Your task to perform on an android device: Open calendar and show me the third week of next month Image 0: 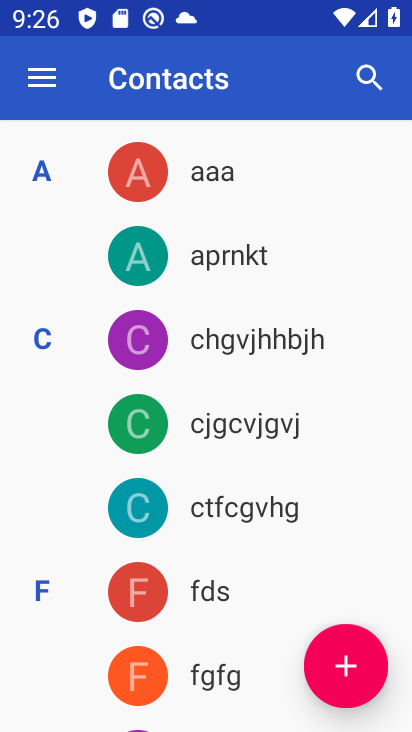
Step 0: press home button
Your task to perform on an android device: Open calendar and show me the third week of next month Image 1: 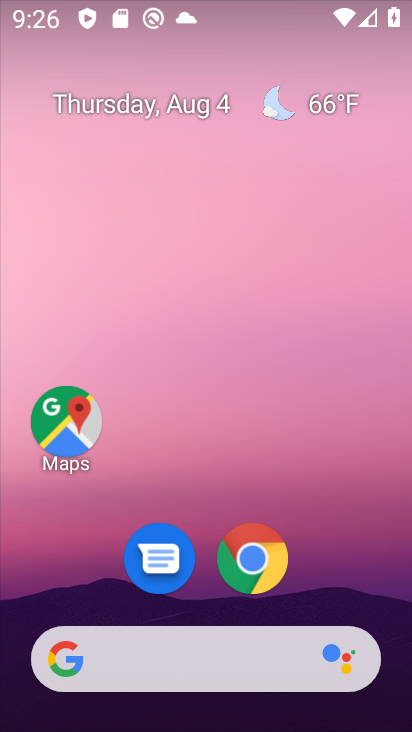
Step 1: drag from (312, 557) to (265, 16)
Your task to perform on an android device: Open calendar and show me the third week of next month Image 2: 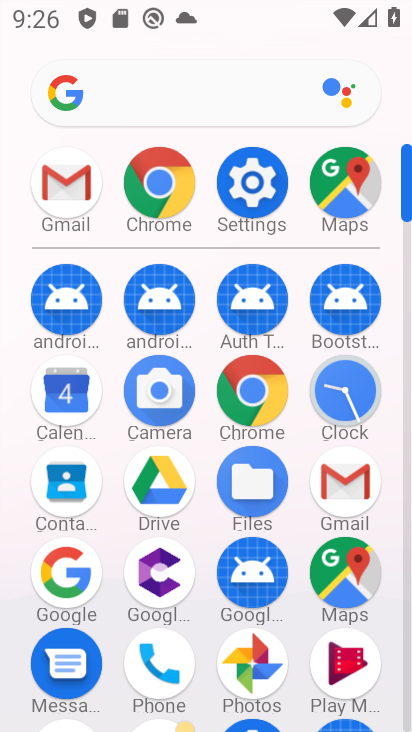
Step 2: click (64, 399)
Your task to perform on an android device: Open calendar and show me the third week of next month Image 3: 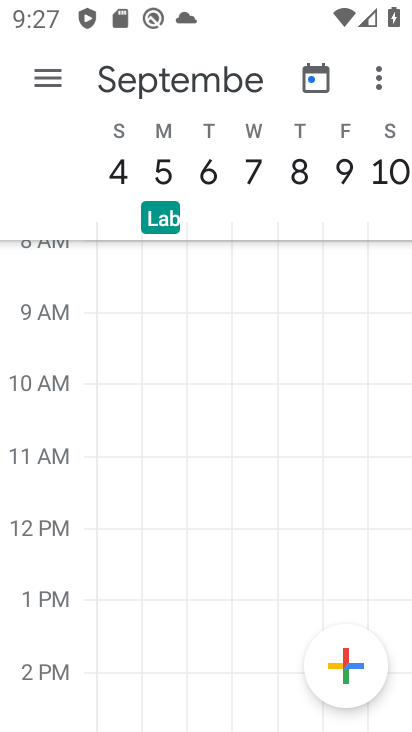
Step 3: click (388, 69)
Your task to perform on an android device: Open calendar and show me the third week of next month Image 4: 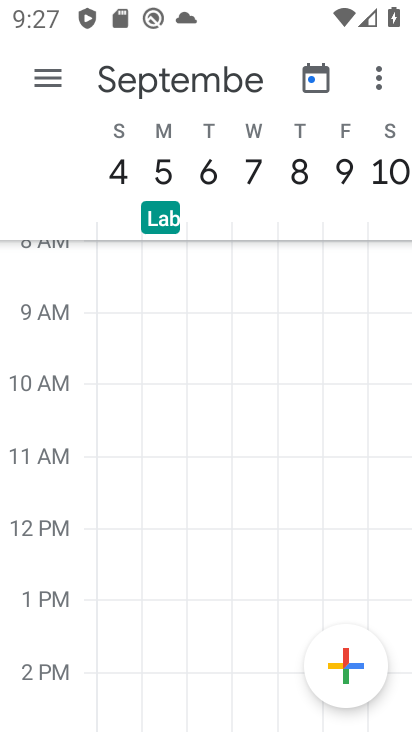
Step 4: click (194, 77)
Your task to perform on an android device: Open calendar and show me the third week of next month Image 5: 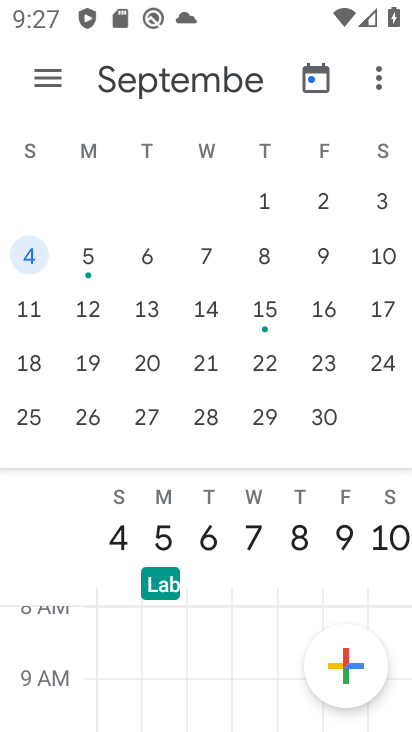
Step 5: click (155, 350)
Your task to perform on an android device: Open calendar and show me the third week of next month Image 6: 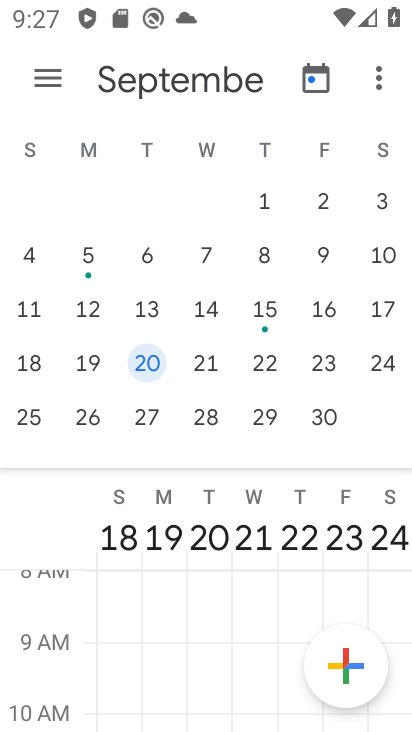
Step 6: task complete